Your task to perform on an android device: turn off notifications in google photos Image 0: 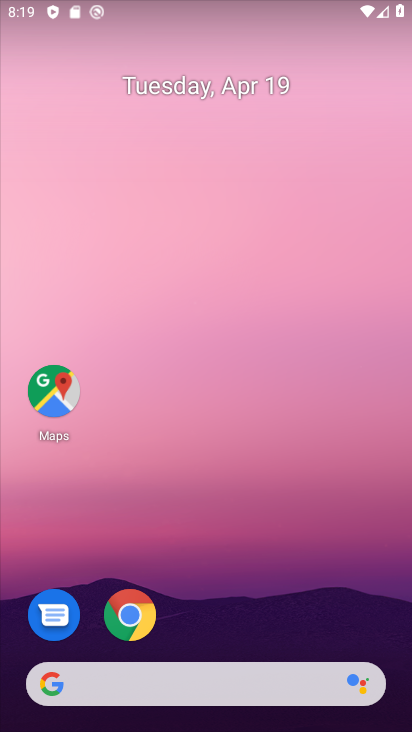
Step 0: drag from (246, 547) to (114, 42)
Your task to perform on an android device: turn off notifications in google photos Image 1: 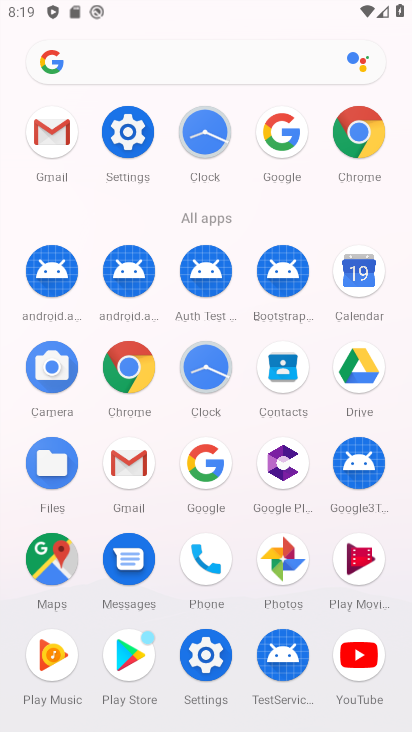
Step 1: drag from (7, 496) to (7, 260)
Your task to perform on an android device: turn off notifications in google photos Image 2: 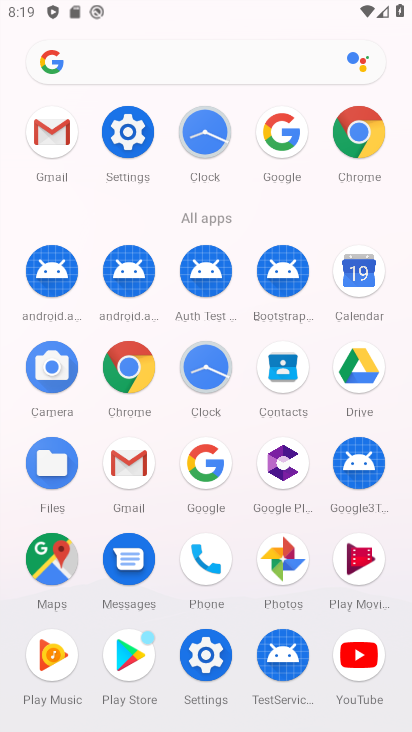
Step 2: click (282, 556)
Your task to perform on an android device: turn off notifications in google photos Image 3: 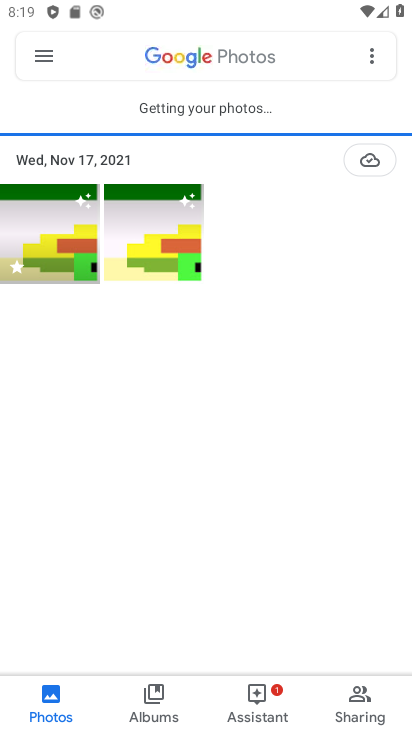
Step 3: click (51, 59)
Your task to perform on an android device: turn off notifications in google photos Image 4: 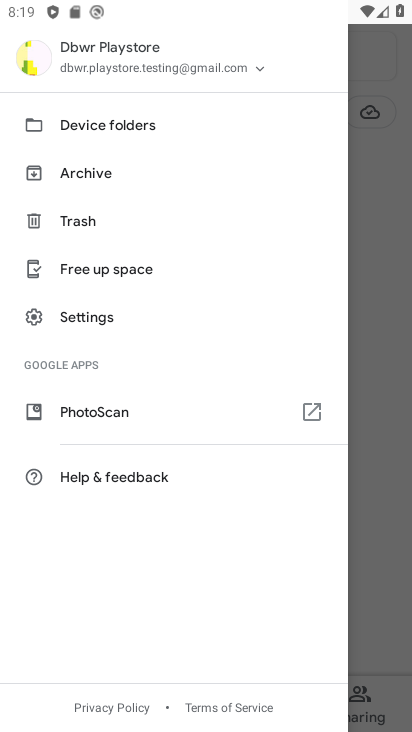
Step 4: click (111, 314)
Your task to perform on an android device: turn off notifications in google photos Image 5: 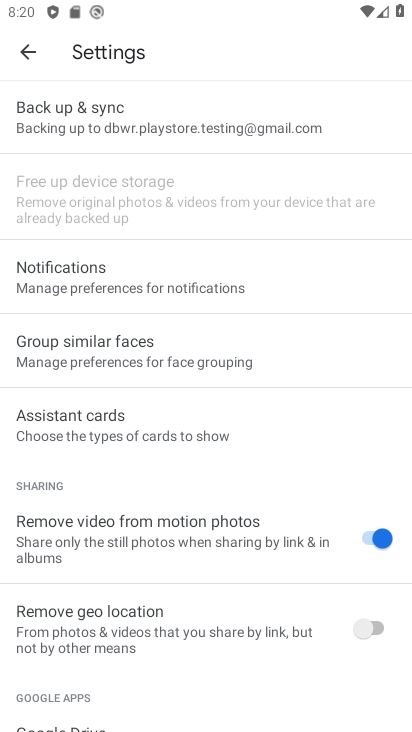
Step 5: drag from (232, 454) to (209, 260)
Your task to perform on an android device: turn off notifications in google photos Image 6: 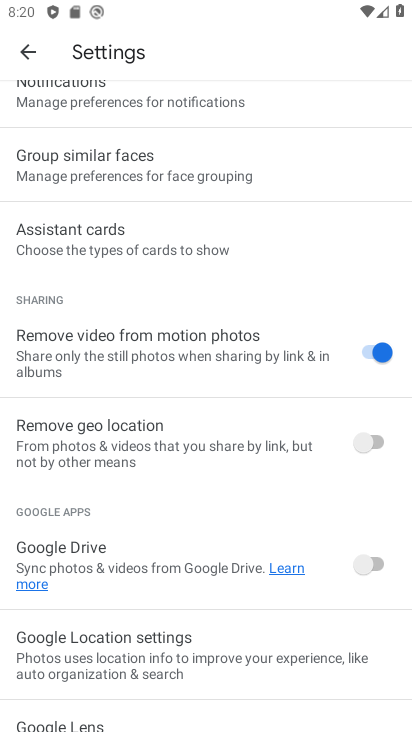
Step 6: click (223, 165)
Your task to perform on an android device: turn off notifications in google photos Image 7: 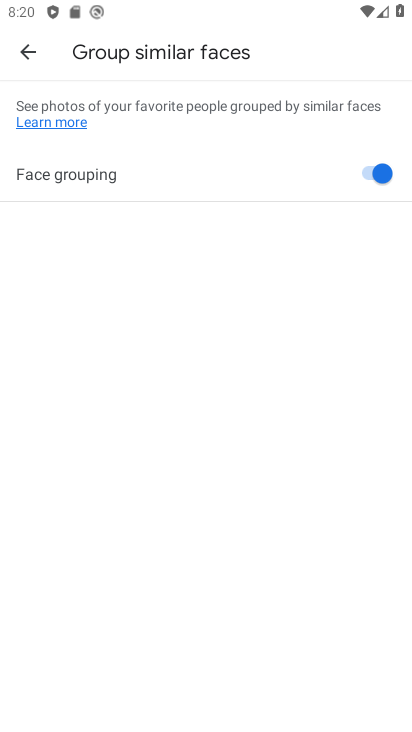
Step 7: click (27, 44)
Your task to perform on an android device: turn off notifications in google photos Image 8: 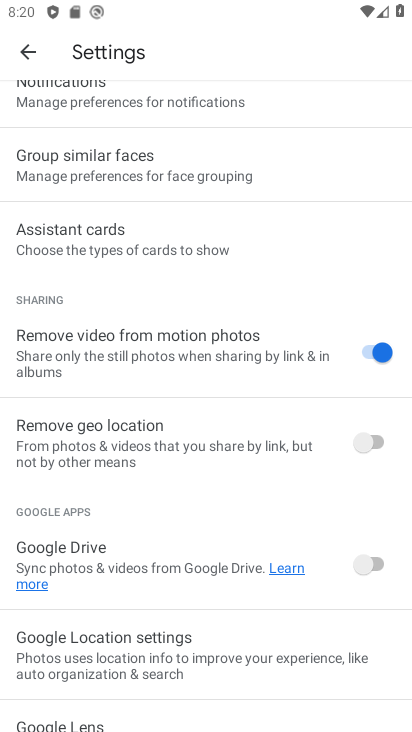
Step 8: drag from (155, 149) to (159, 353)
Your task to perform on an android device: turn off notifications in google photos Image 9: 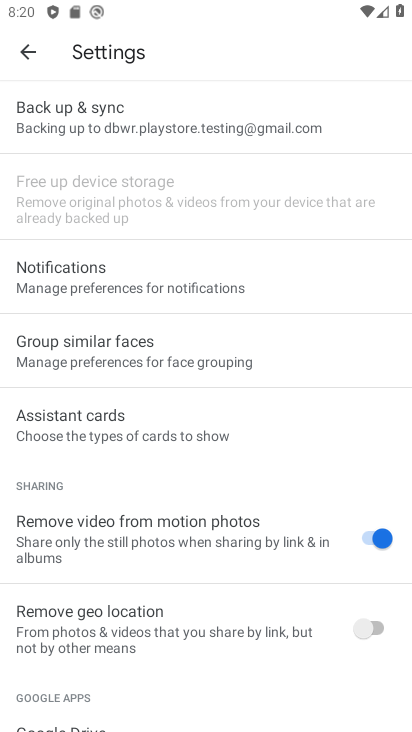
Step 9: click (122, 279)
Your task to perform on an android device: turn off notifications in google photos Image 10: 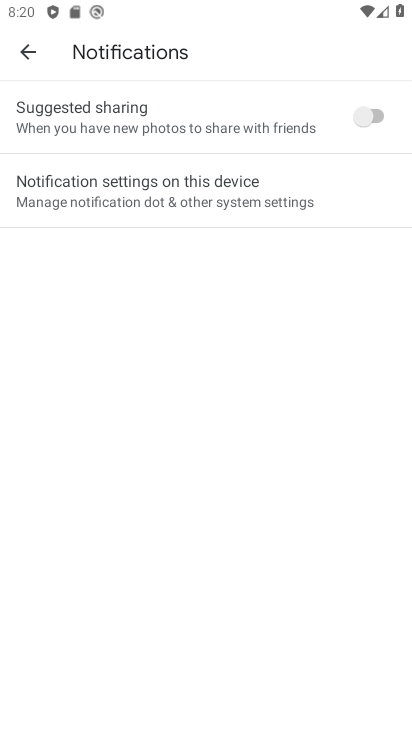
Step 10: click (300, 175)
Your task to perform on an android device: turn off notifications in google photos Image 11: 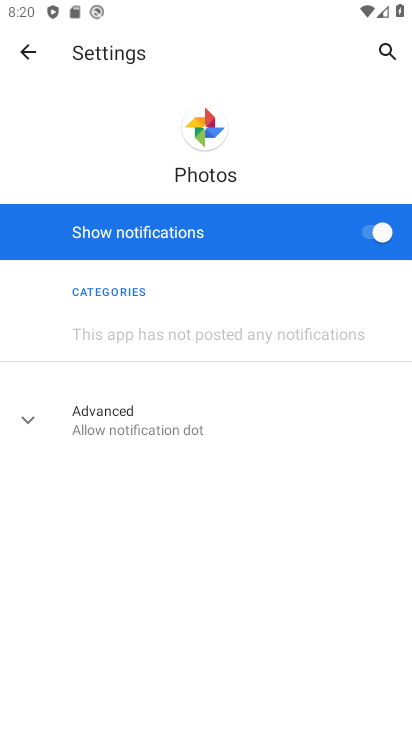
Step 11: click (374, 240)
Your task to perform on an android device: turn off notifications in google photos Image 12: 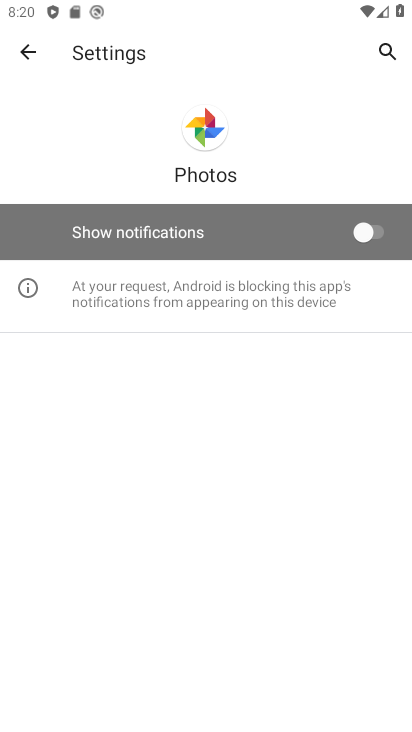
Step 12: task complete